Your task to perform on an android device: Open Android settings Image 0: 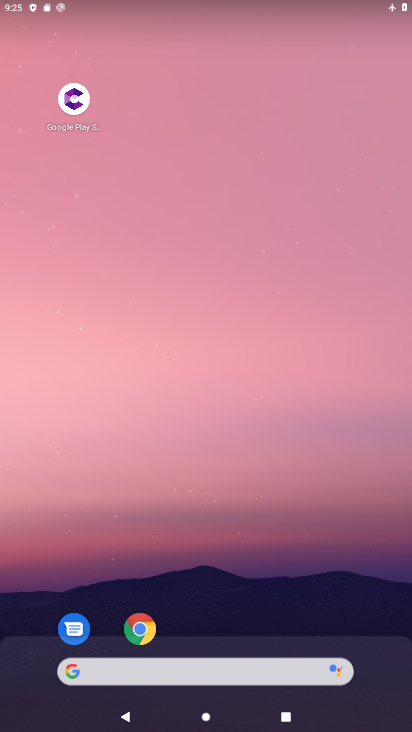
Step 0: drag from (198, 627) to (301, 11)
Your task to perform on an android device: Open Android settings Image 1: 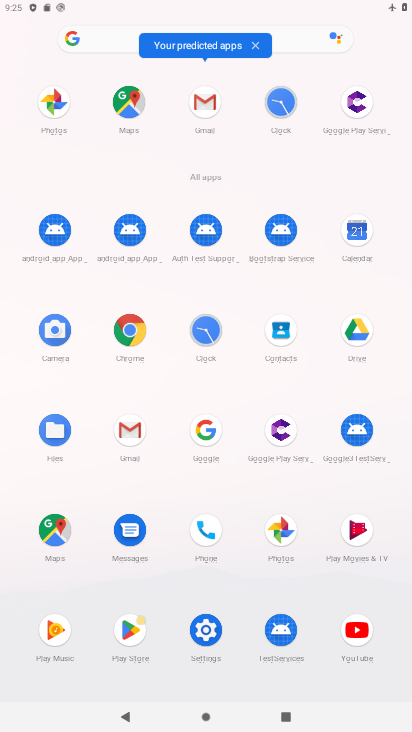
Step 1: click (191, 639)
Your task to perform on an android device: Open Android settings Image 2: 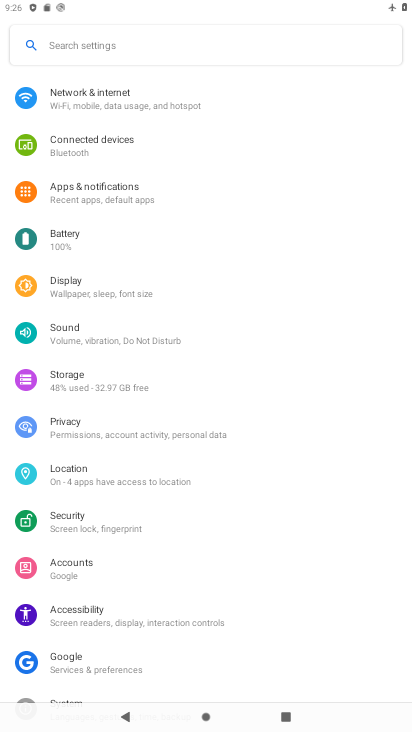
Step 2: task complete